Your task to perform on an android device: Clear the cart on walmart.com. Search for "razer blade" on walmart.com, select the first entry, and add it to the cart. Image 0: 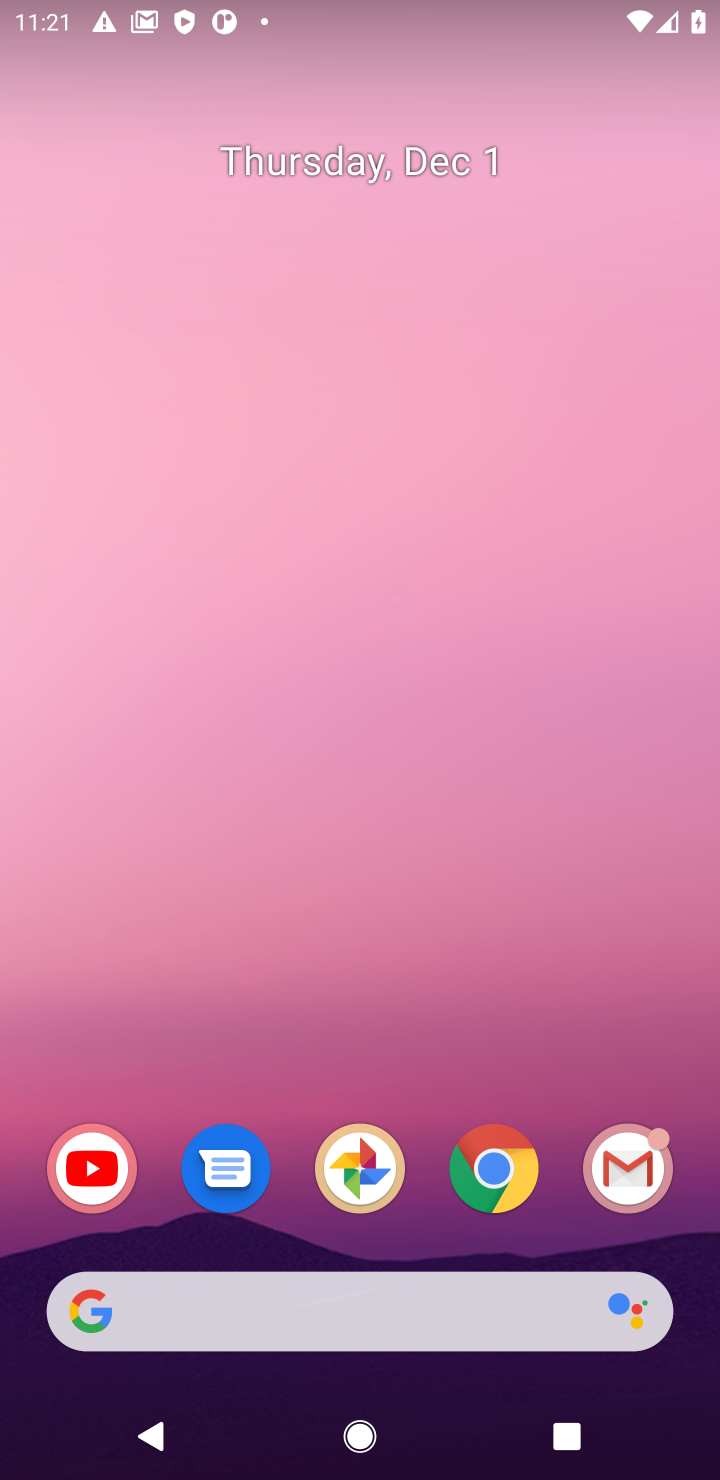
Step 0: click (493, 1174)
Your task to perform on an android device: Clear the cart on walmart.com. Search for "razer blade" on walmart.com, select the first entry, and add it to the cart. Image 1: 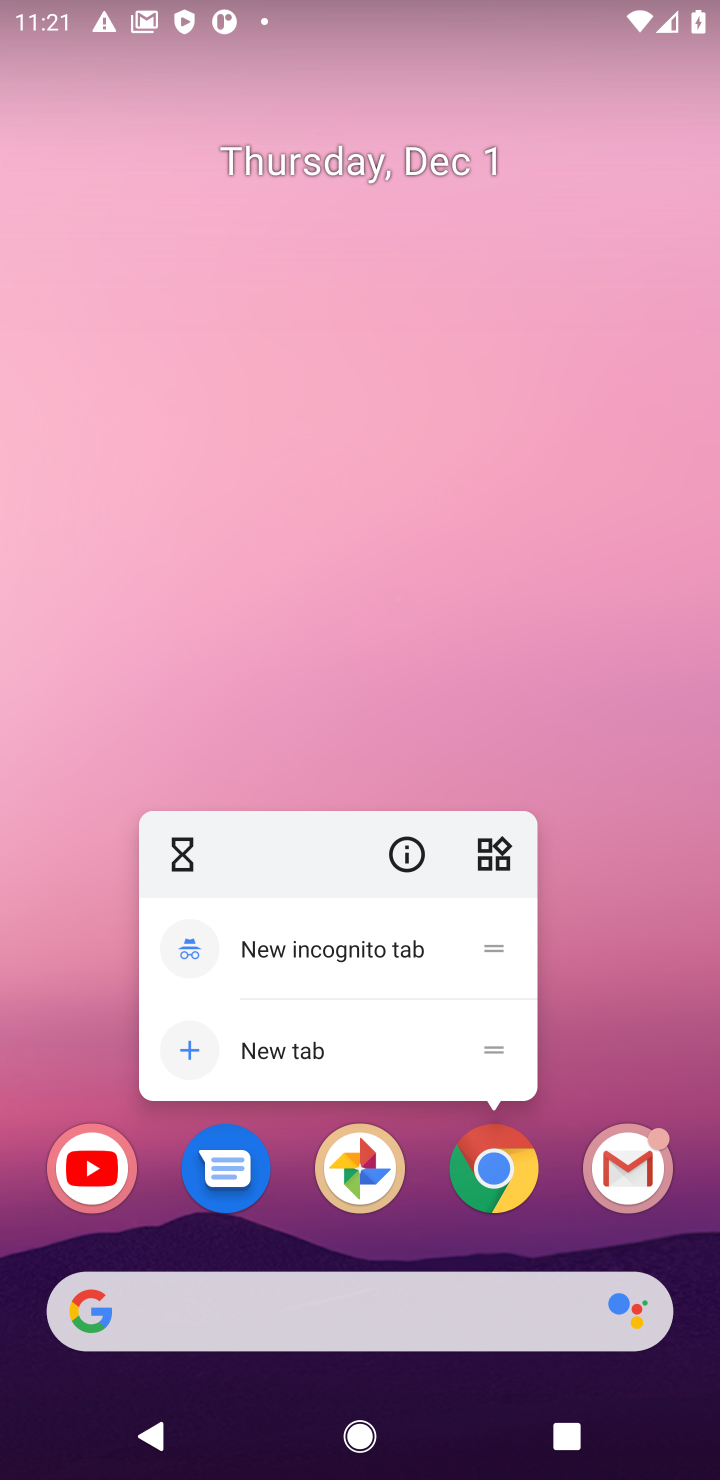
Step 1: click (498, 1185)
Your task to perform on an android device: Clear the cart on walmart.com. Search for "razer blade" on walmart.com, select the first entry, and add it to the cart. Image 2: 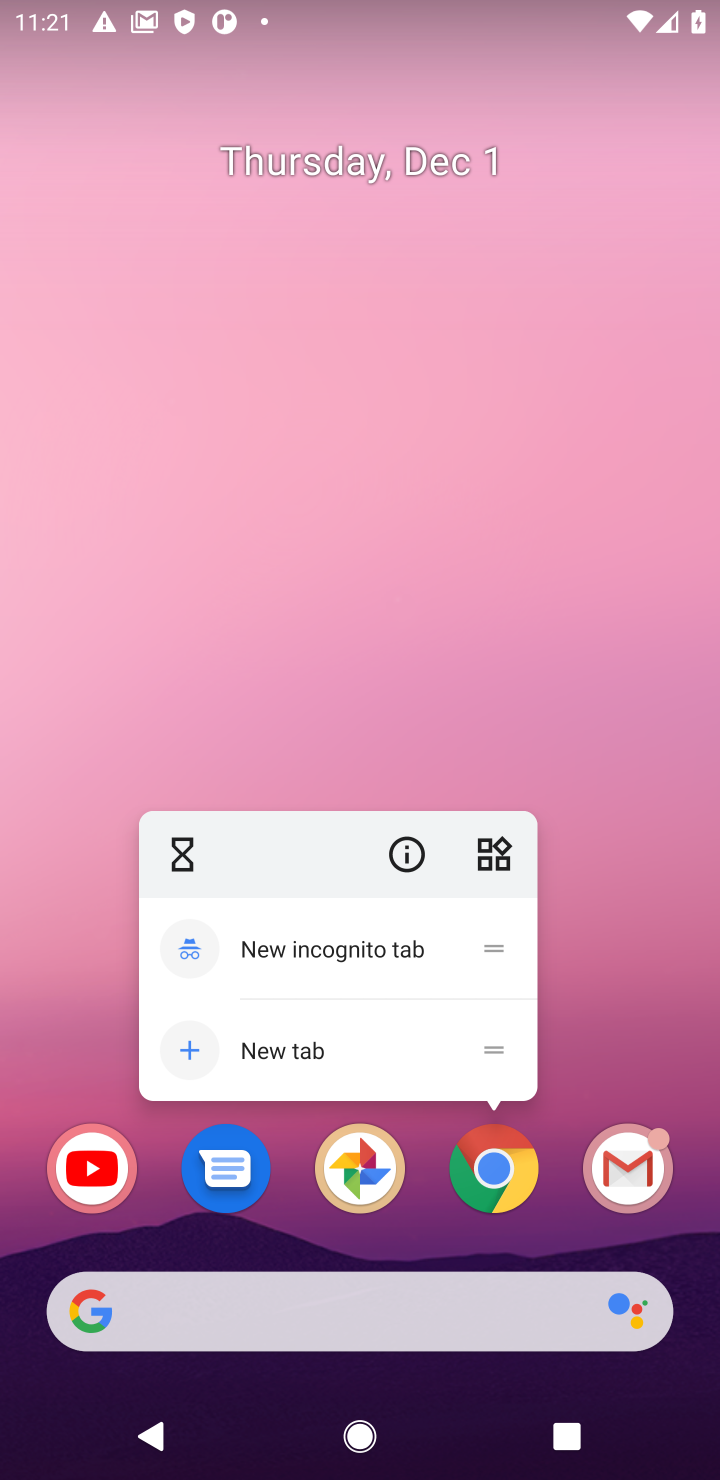
Step 2: click (498, 1185)
Your task to perform on an android device: Clear the cart on walmart.com. Search for "razer blade" on walmart.com, select the first entry, and add it to the cart. Image 3: 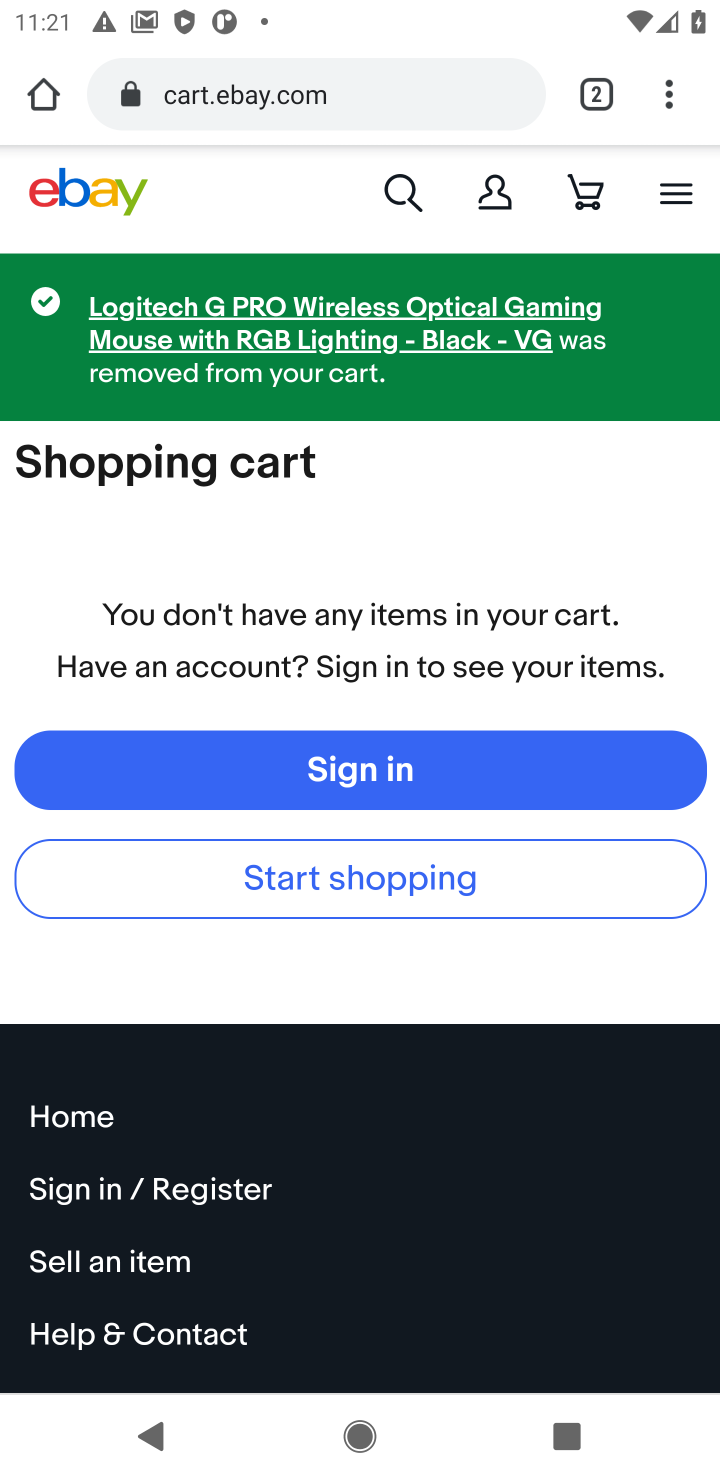
Step 3: click (258, 105)
Your task to perform on an android device: Clear the cart on walmart.com. Search for "razer blade" on walmart.com, select the first entry, and add it to the cart. Image 4: 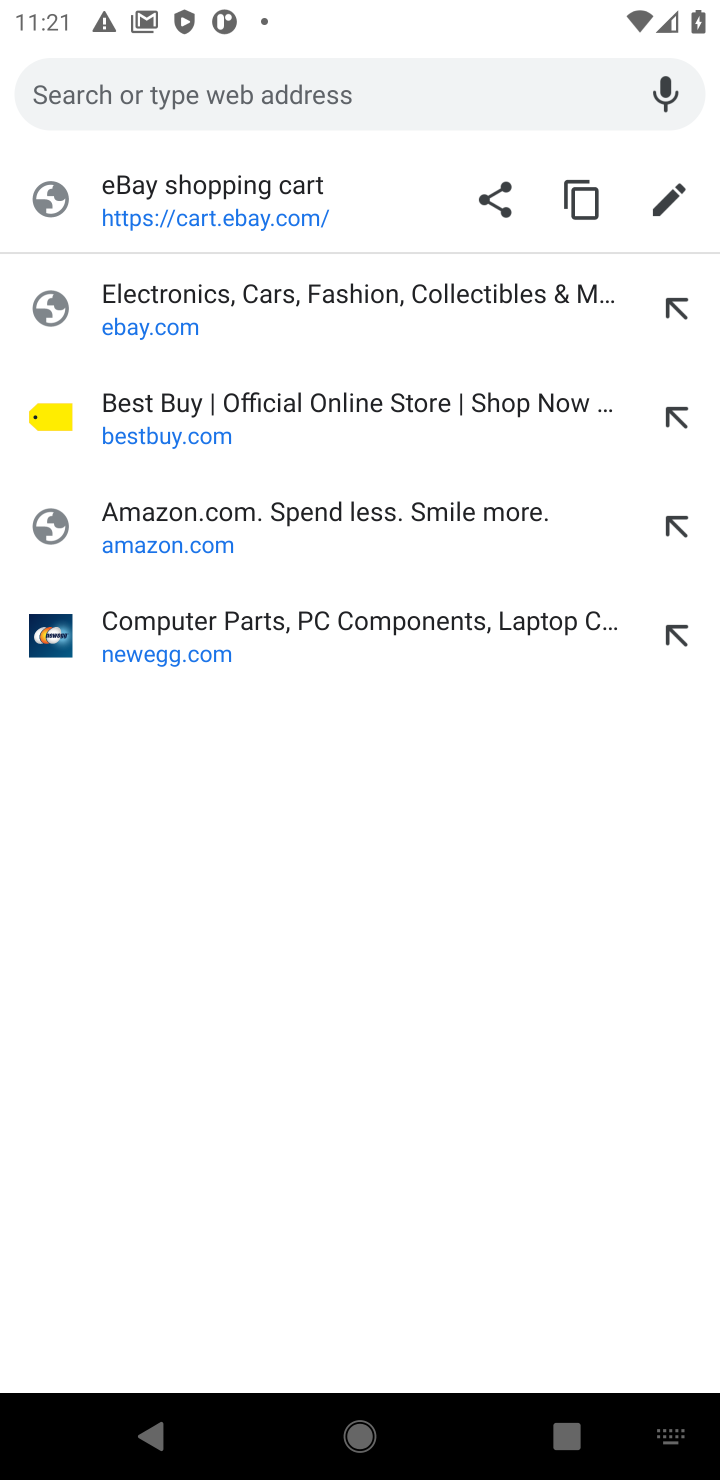
Step 4: type "walmart.com"
Your task to perform on an android device: Clear the cart on walmart.com. Search for "razer blade" on walmart.com, select the first entry, and add it to the cart. Image 5: 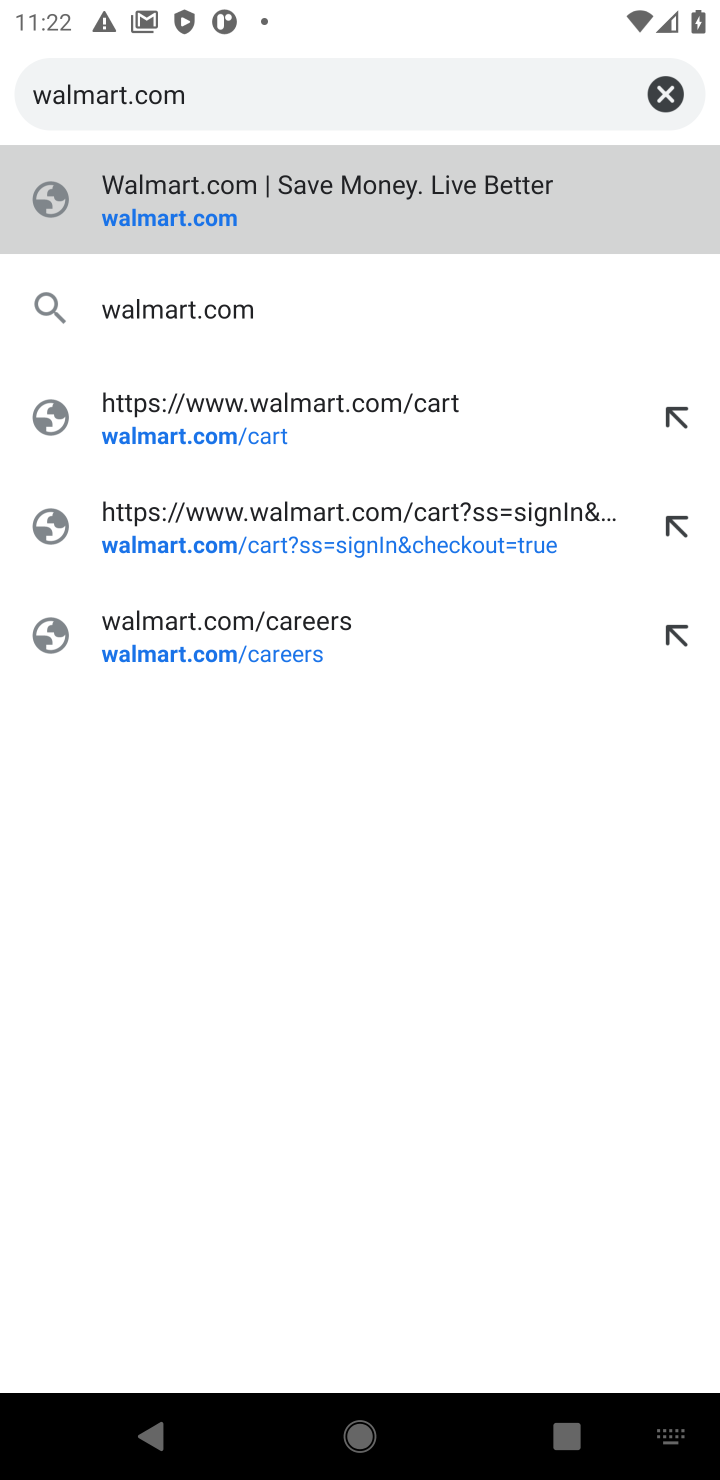
Step 5: click (148, 218)
Your task to perform on an android device: Clear the cart on walmart.com. Search for "razer blade" on walmart.com, select the first entry, and add it to the cart. Image 6: 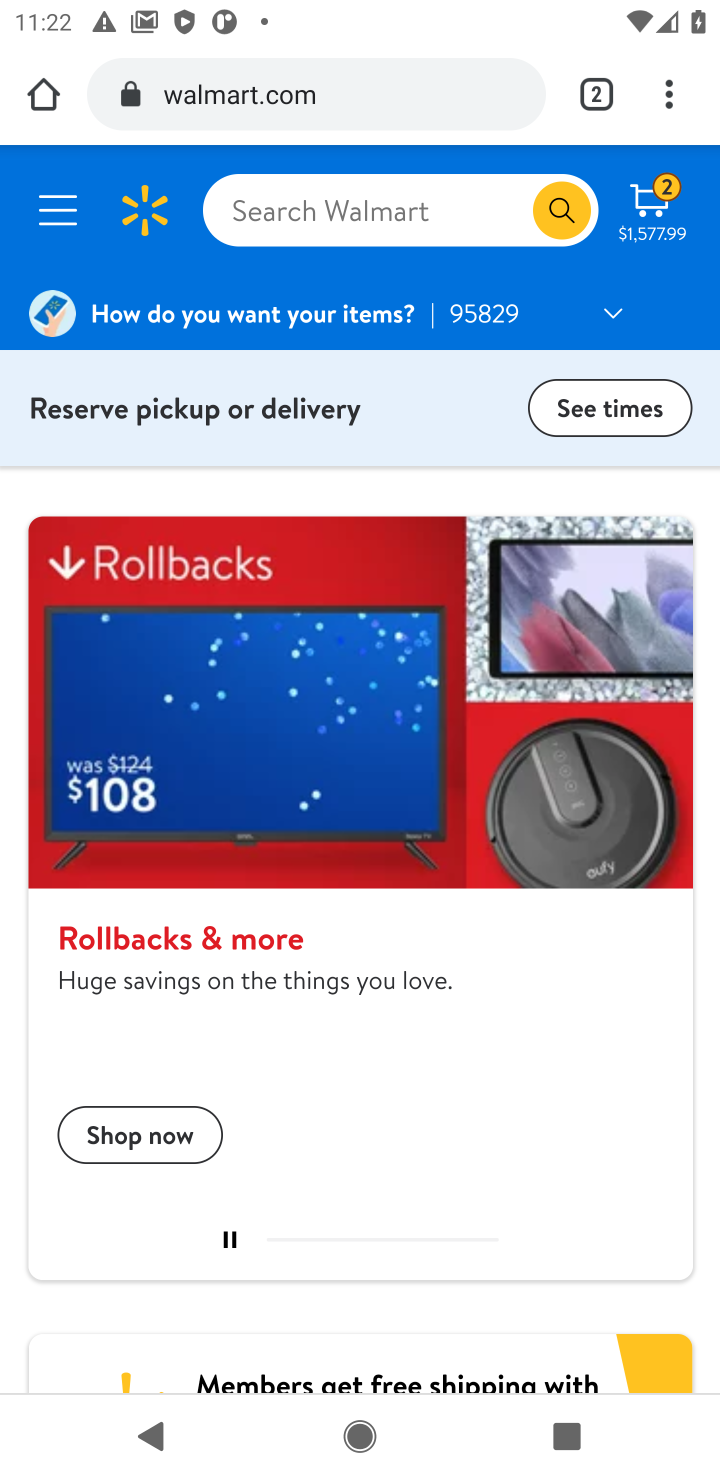
Step 6: click (642, 204)
Your task to perform on an android device: Clear the cart on walmart.com. Search for "razer blade" on walmart.com, select the first entry, and add it to the cart. Image 7: 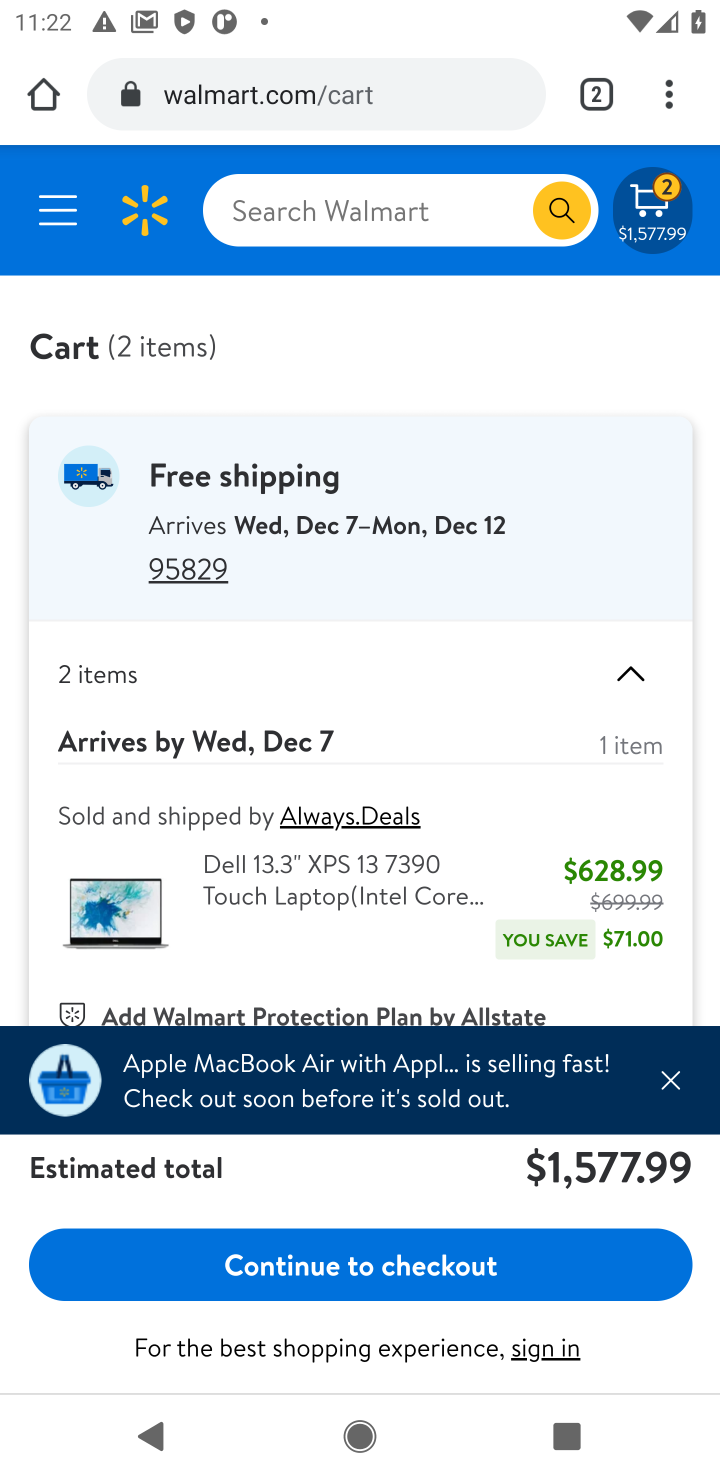
Step 7: drag from (454, 664) to (442, 299)
Your task to perform on an android device: Clear the cart on walmart.com. Search for "razer blade" on walmart.com, select the first entry, and add it to the cart. Image 8: 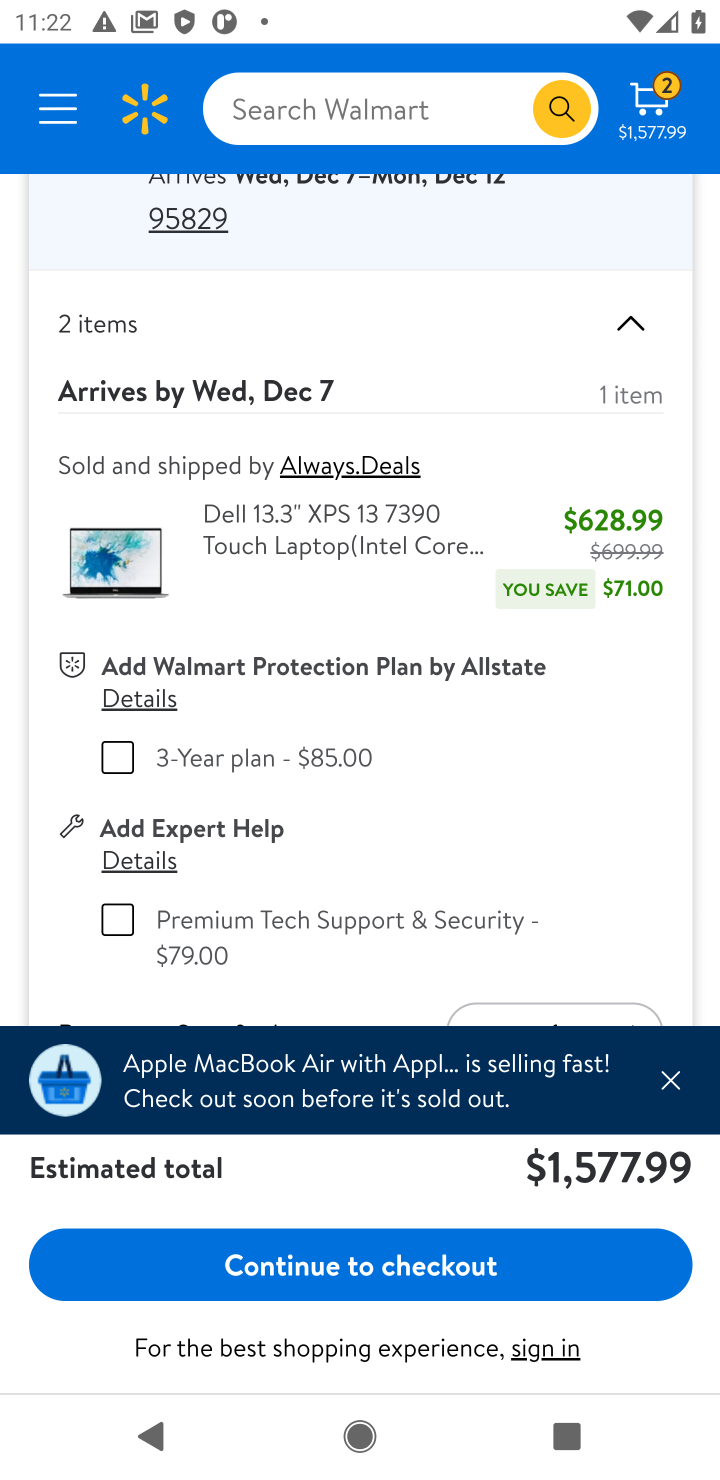
Step 8: drag from (515, 794) to (483, 313)
Your task to perform on an android device: Clear the cart on walmart.com. Search for "razer blade" on walmart.com, select the first entry, and add it to the cart. Image 9: 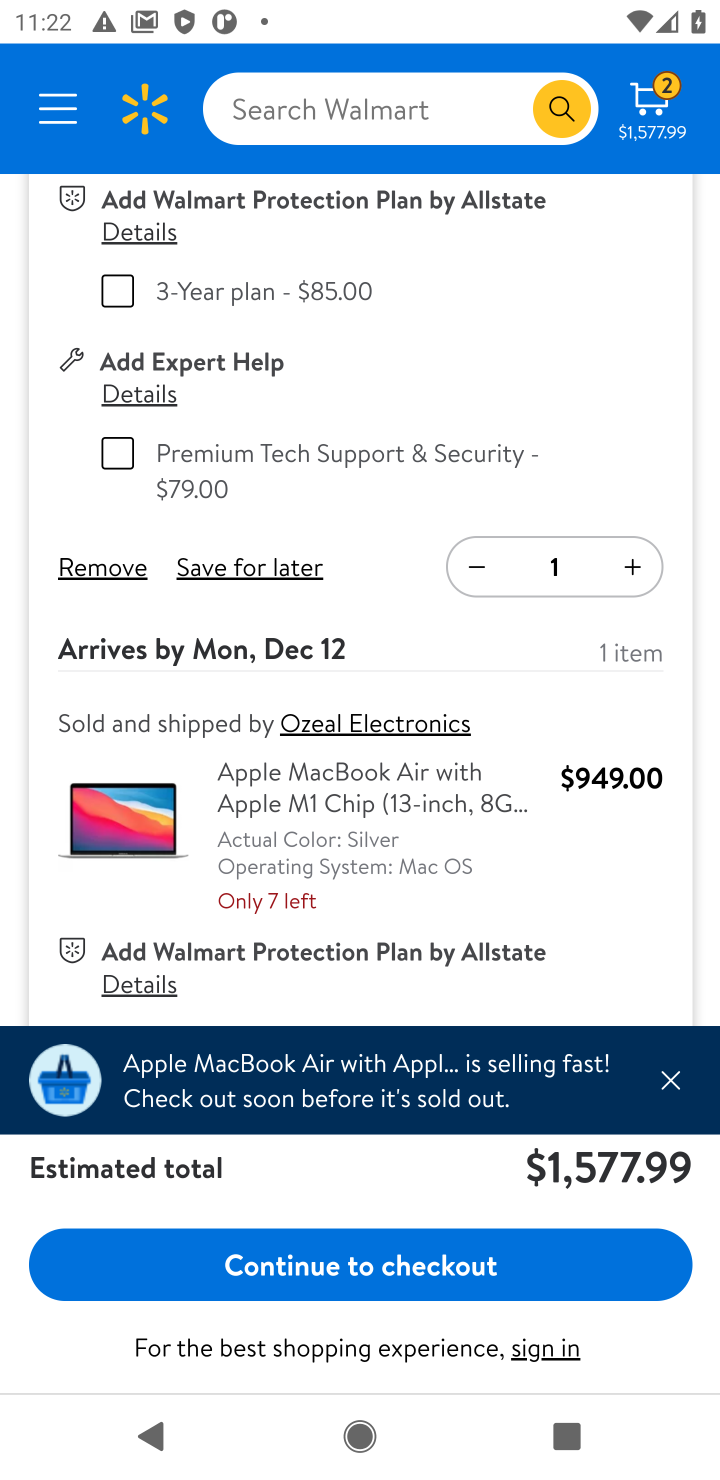
Step 9: click (80, 576)
Your task to perform on an android device: Clear the cart on walmart.com. Search for "razer blade" on walmart.com, select the first entry, and add it to the cart. Image 10: 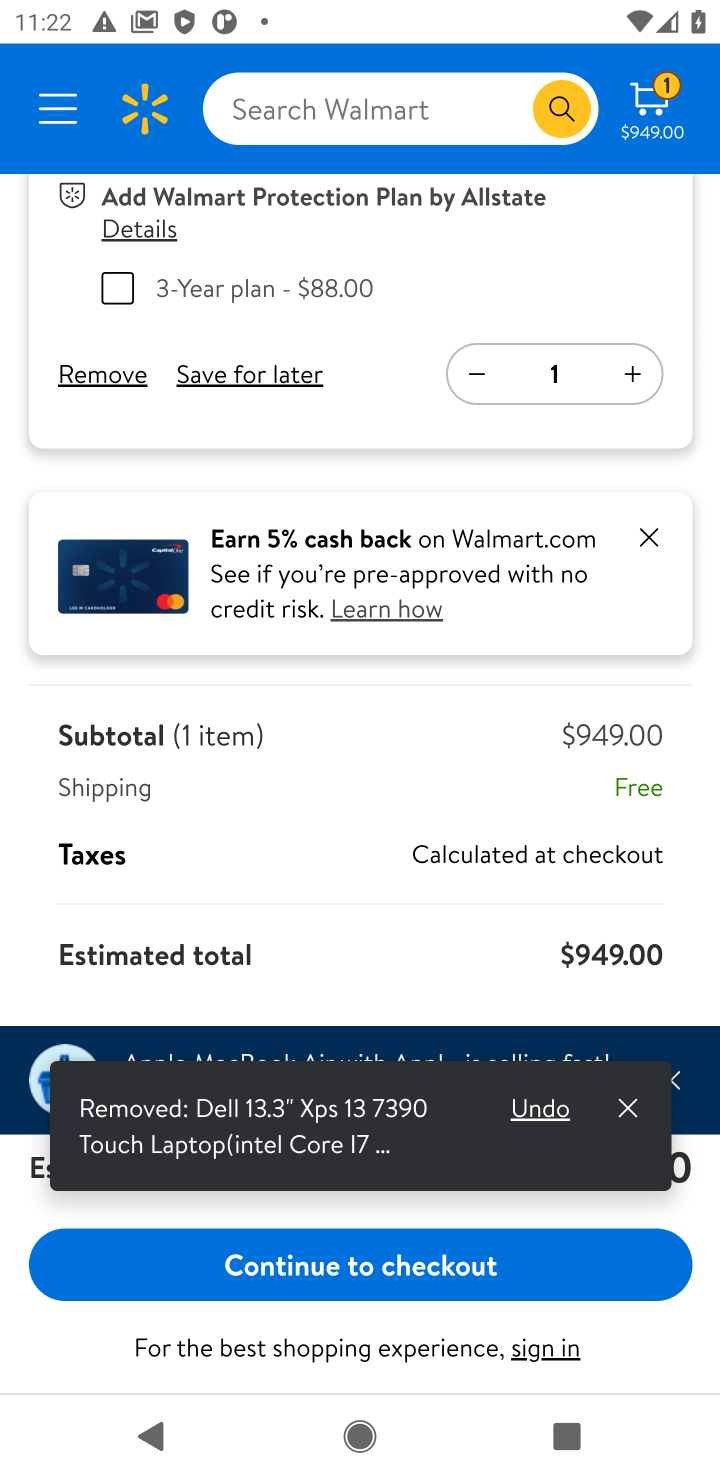
Step 10: click (72, 383)
Your task to perform on an android device: Clear the cart on walmart.com. Search for "razer blade" on walmart.com, select the first entry, and add it to the cart. Image 11: 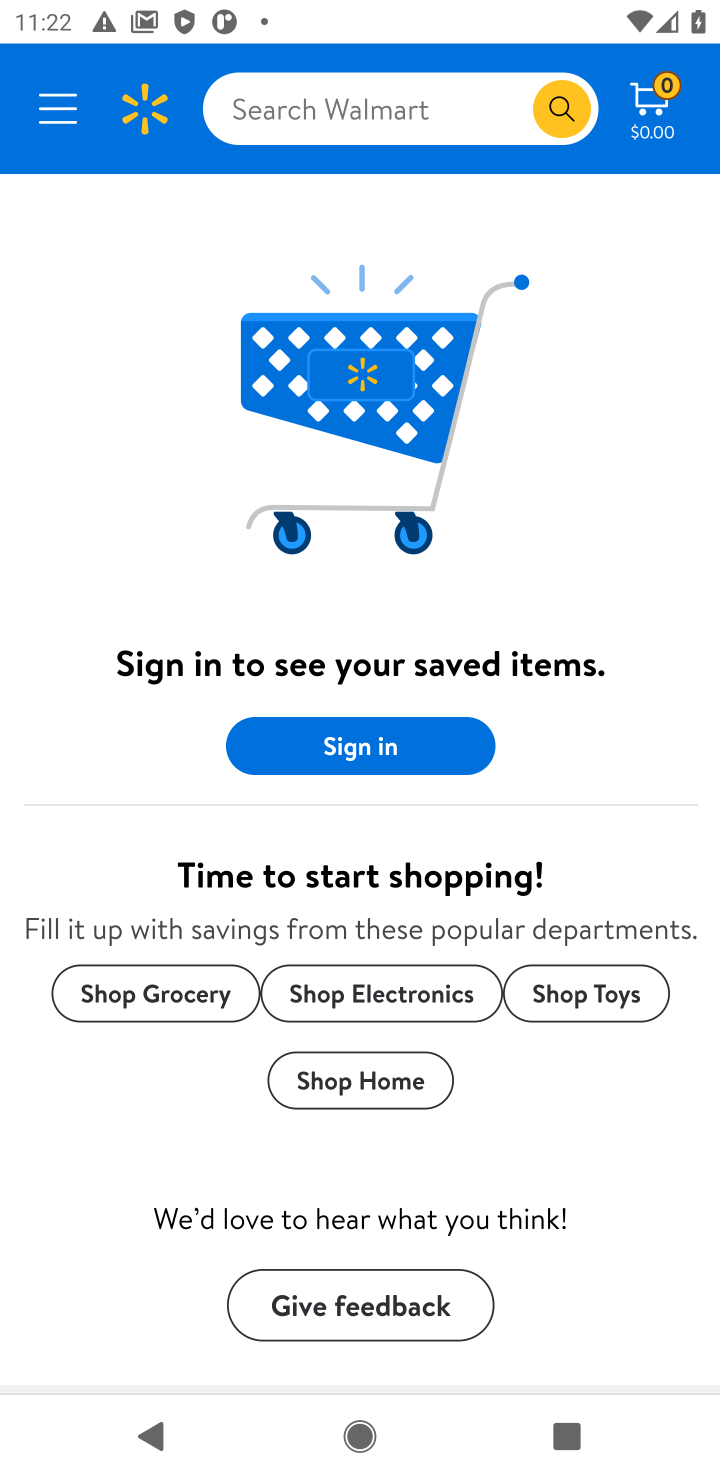
Step 11: drag from (556, 434) to (560, 594)
Your task to perform on an android device: Clear the cart on walmart.com. Search for "razer blade" on walmart.com, select the first entry, and add it to the cart. Image 12: 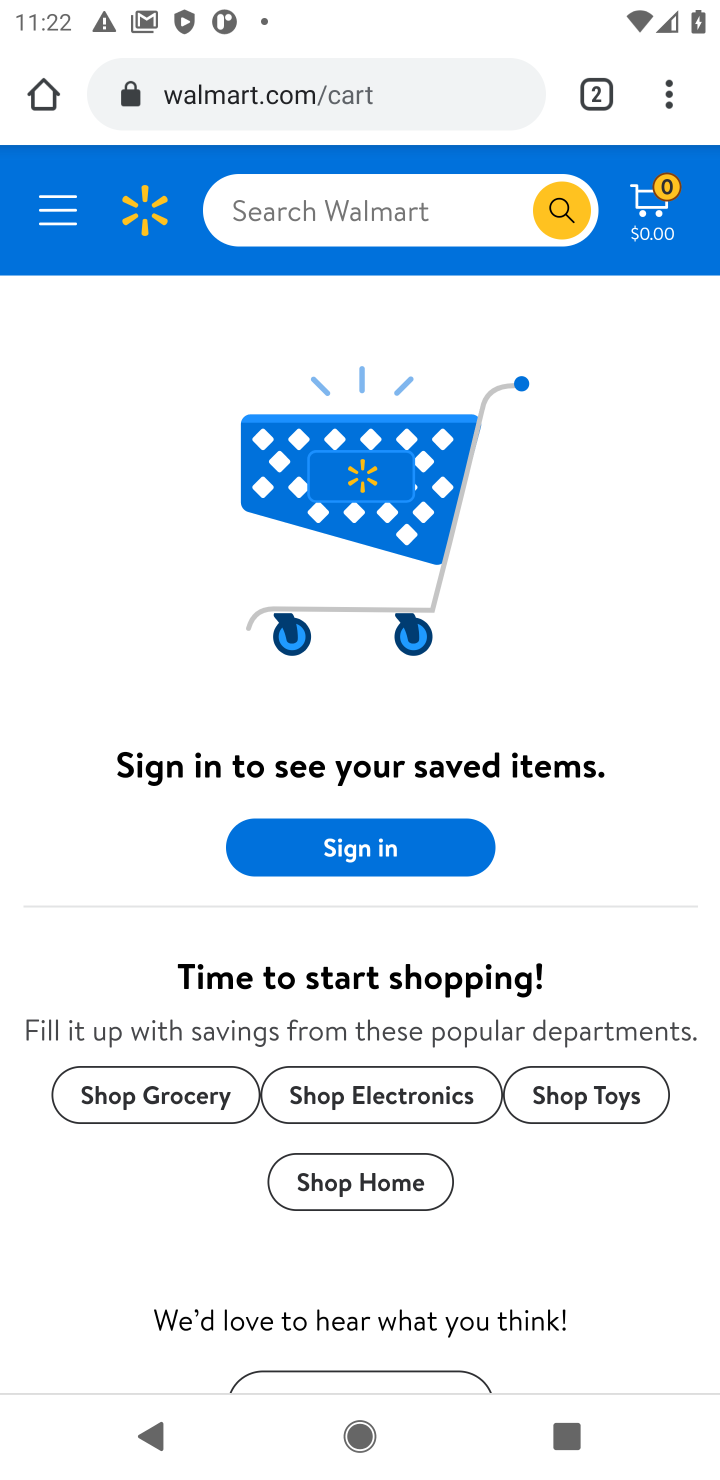
Step 12: click (279, 227)
Your task to perform on an android device: Clear the cart on walmart.com. Search for "razer blade" on walmart.com, select the first entry, and add it to the cart. Image 13: 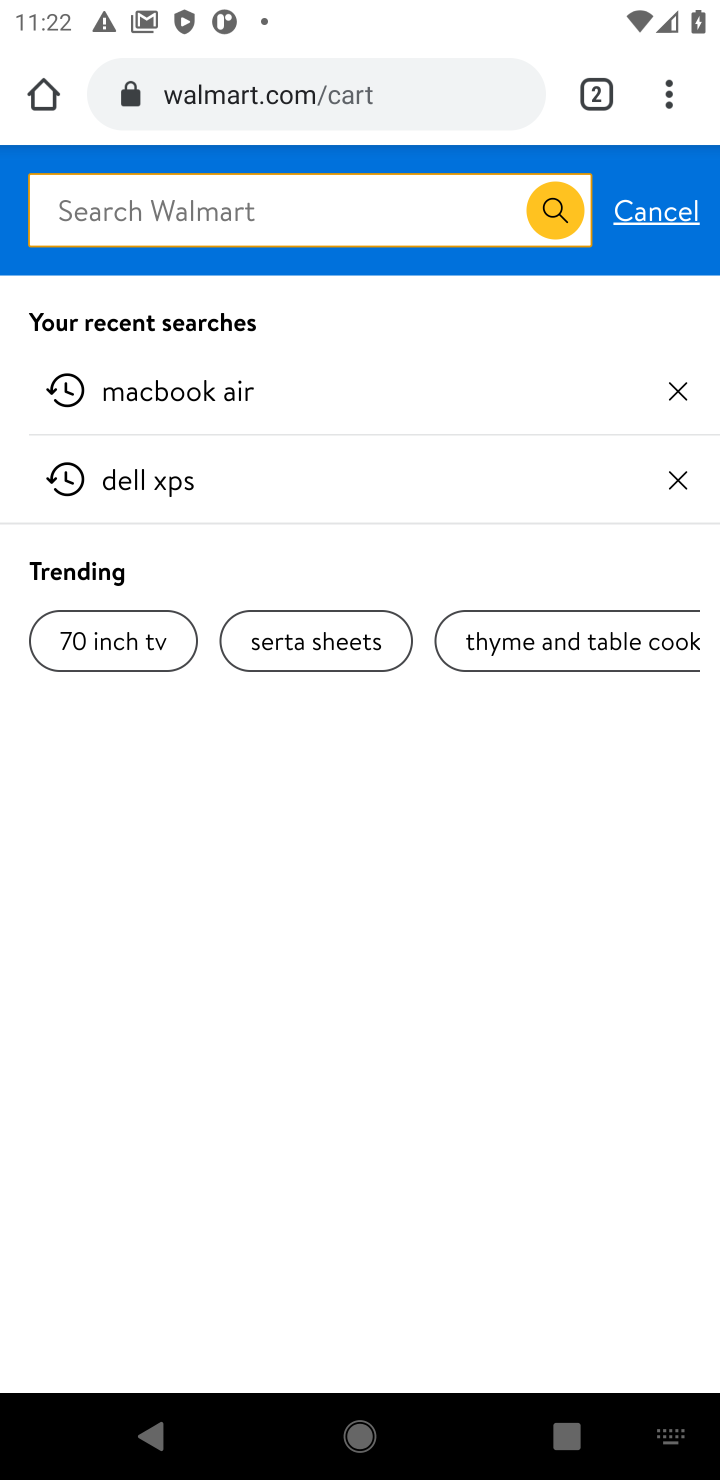
Step 13: type "razer blade"
Your task to perform on an android device: Clear the cart on walmart.com. Search for "razer blade" on walmart.com, select the first entry, and add it to the cart. Image 14: 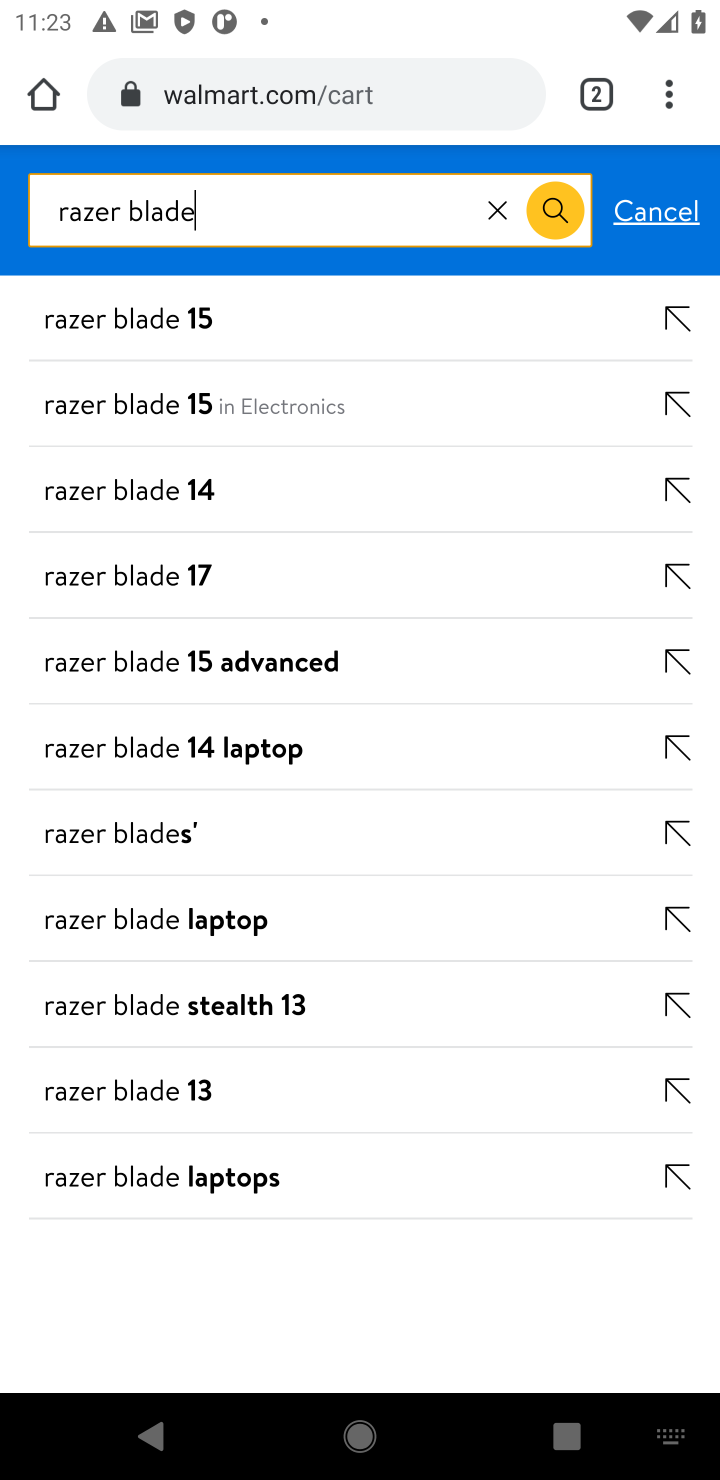
Step 14: click (143, 329)
Your task to perform on an android device: Clear the cart on walmart.com. Search for "razer blade" on walmart.com, select the first entry, and add it to the cart. Image 15: 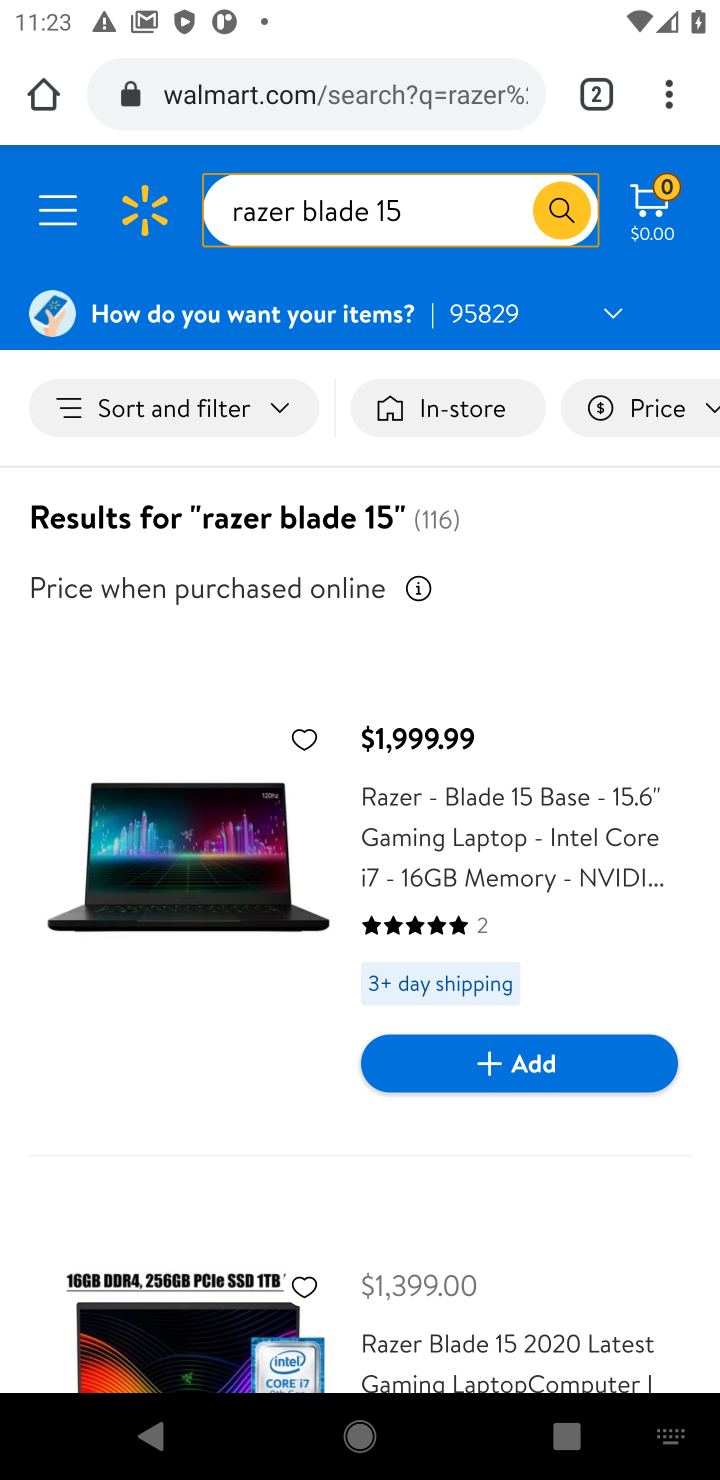
Step 15: click (501, 1061)
Your task to perform on an android device: Clear the cart on walmart.com. Search for "razer blade" on walmart.com, select the first entry, and add it to the cart. Image 16: 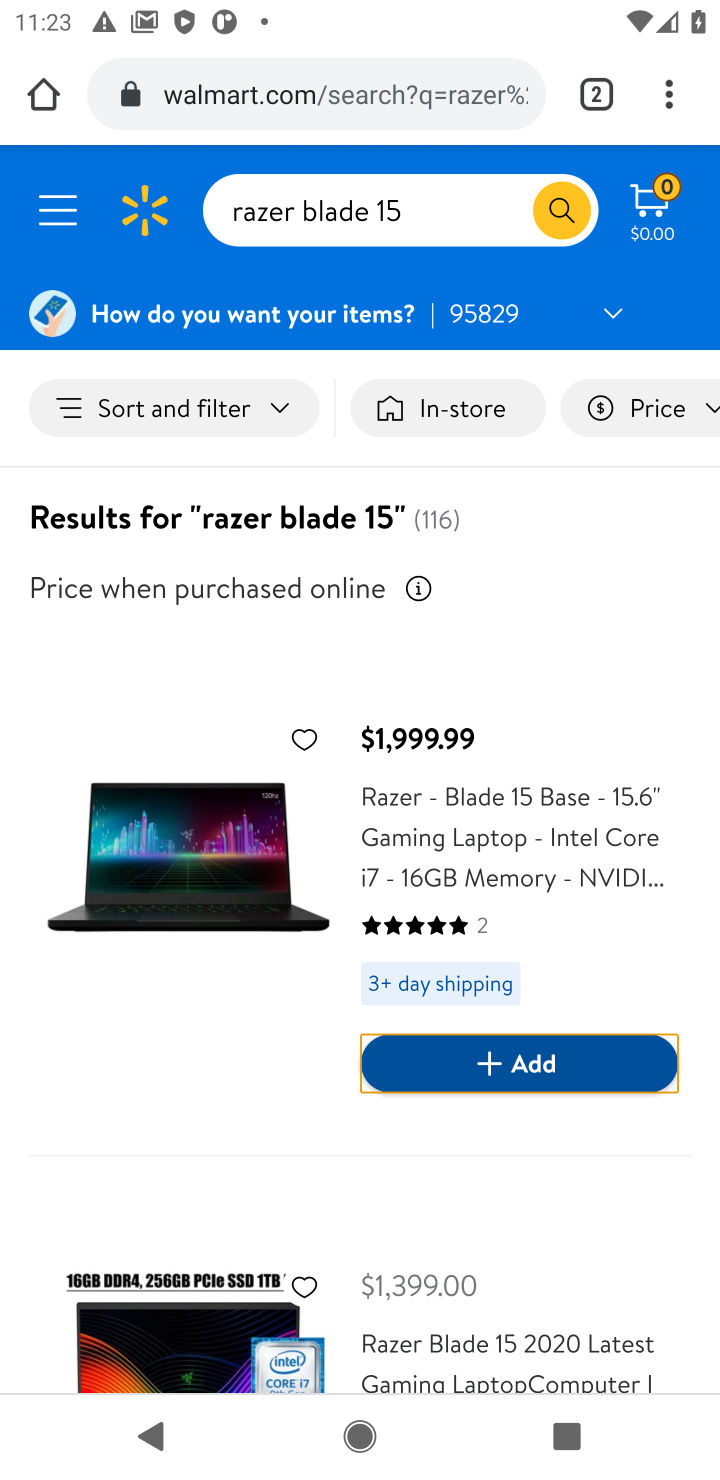
Step 16: click (526, 1077)
Your task to perform on an android device: Clear the cart on walmart.com. Search for "razer blade" on walmart.com, select the first entry, and add it to the cart. Image 17: 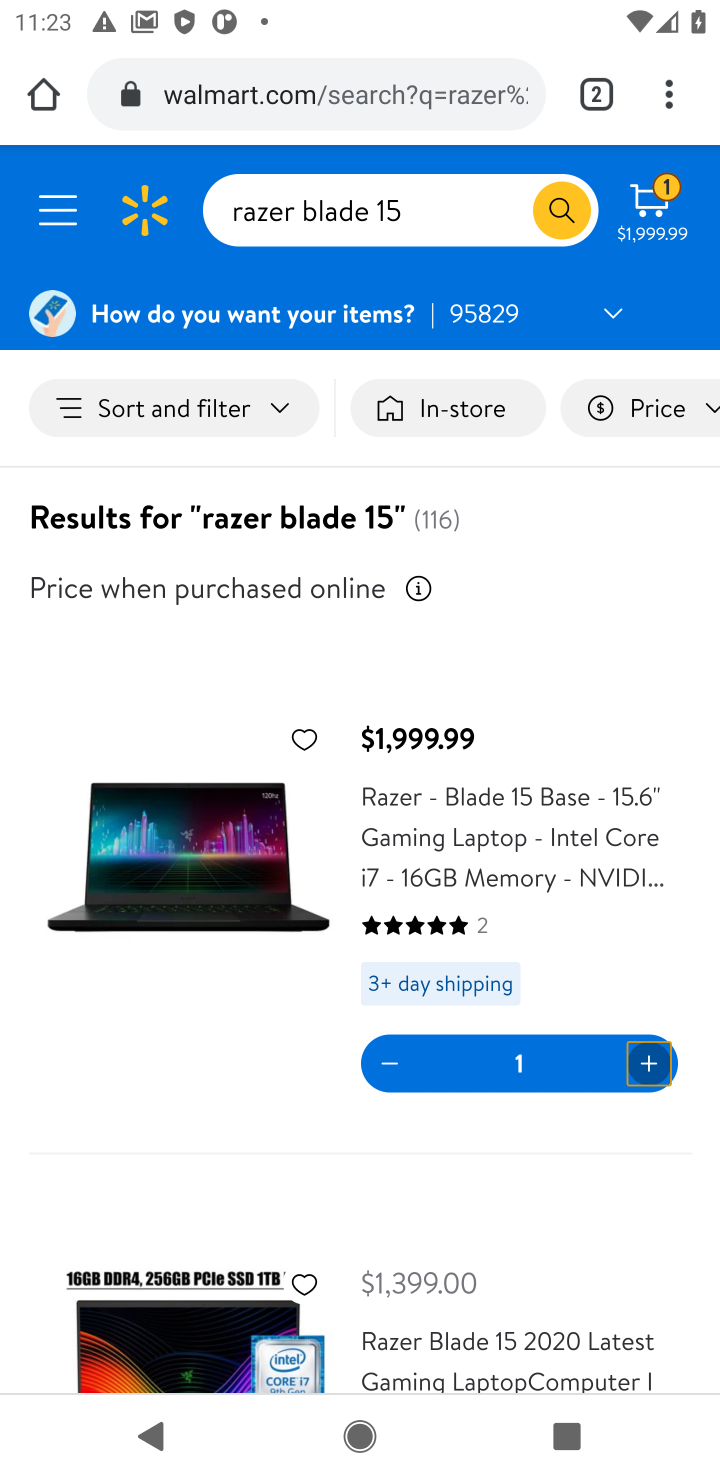
Step 17: task complete